Your task to perform on an android device: What is the capital of Italy? Image 0: 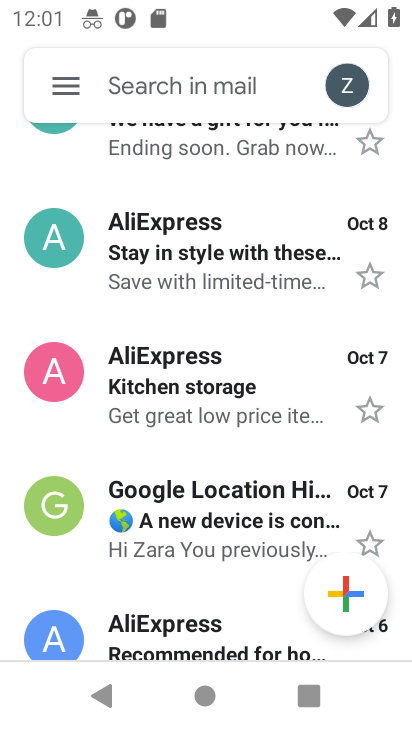
Step 0: press home button
Your task to perform on an android device: What is the capital of Italy? Image 1: 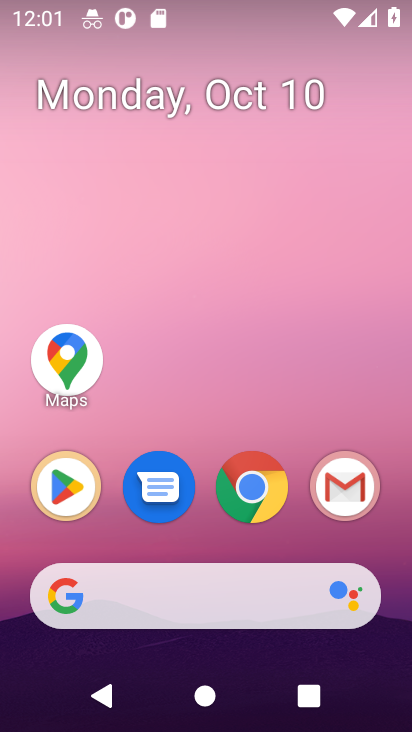
Step 1: click (252, 483)
Your task to perform on an android device: What is the capital of Italy? Image 2: 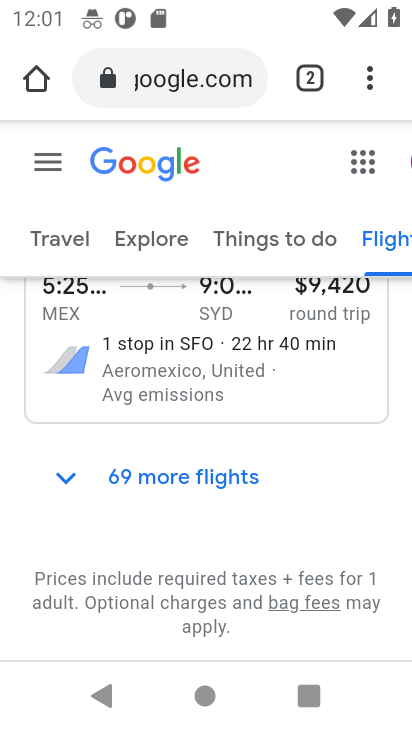
Step 2: click (197, 96)
Your task to perform on an android device: What is the capital of Italy? Image 3: 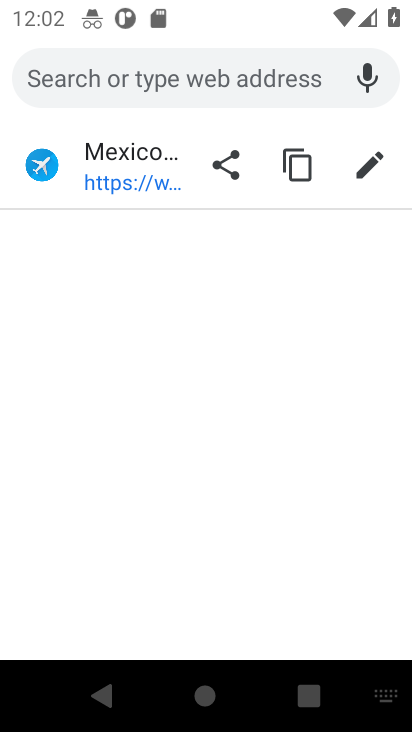
Step 3: click (204, 62)
Your task to perform on an android device: What is the capital of Italy? Image 4: 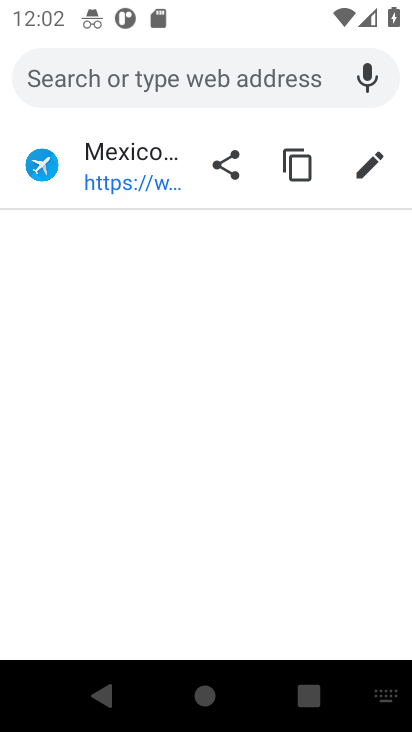
Step 4: type "capital city of Italy"
Your task to perform on an android device: What is the capital of Italy? Image 5: 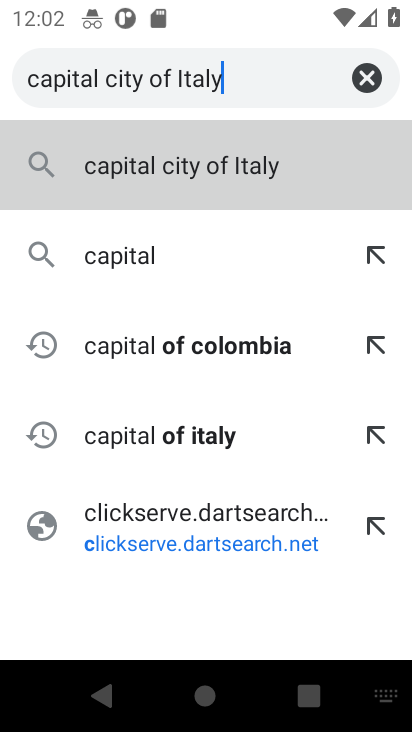
Step 5: type ""
Your task to perform on an android device: What is the capital of Italy? Image 6: 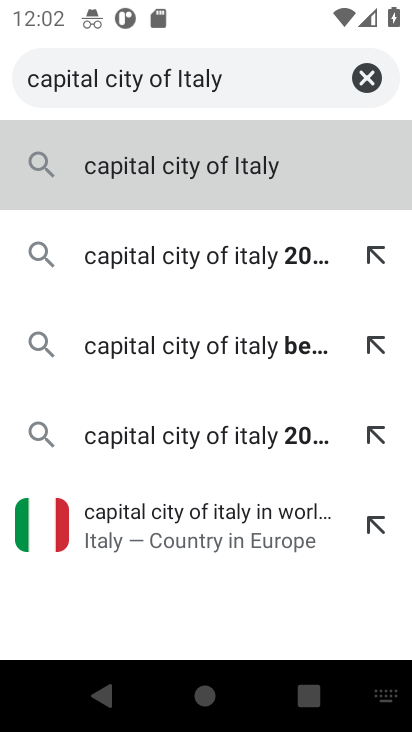
Step 6: press enter
Your task to perform on an android device: What is the capital of Italy? Image 7: 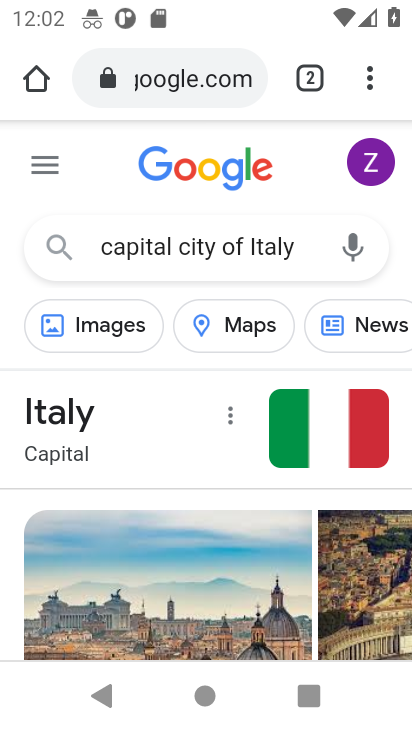
Step 7: drag from (181, 483) to (175, 219)
Your task to perform on an android device: What is the capital of Italy? Image 8: 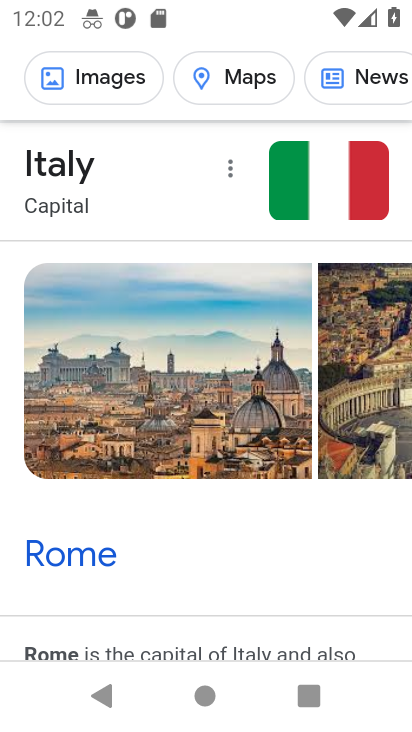
Step 8: drag from (186, 533) to (223, 293)
Your task to perform on an android device: What is the capital of Italy? Image 9: 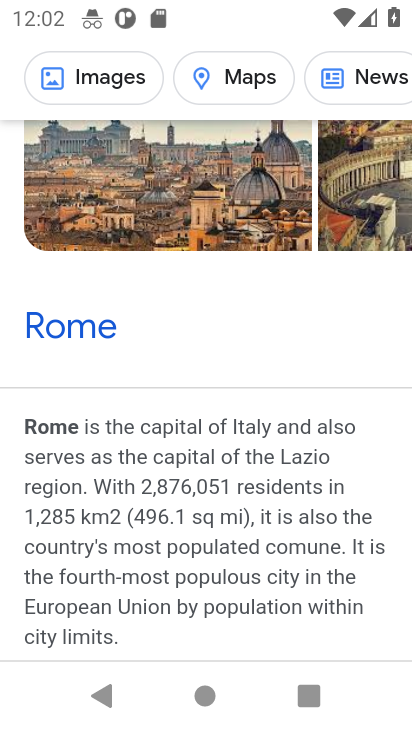
Step 9: drag from (172, 454) to (199, 283)
Your task to perform on an android device: What is the capital of Italy? Image 10: 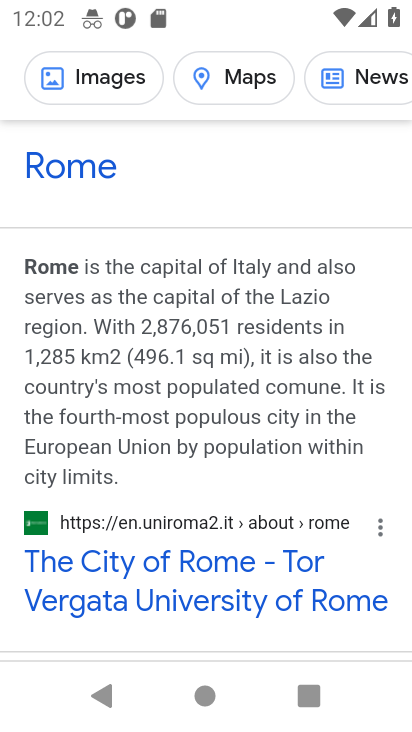
Step 10: drag from (272, 432) to (251, 330)
Your task to perform on an android device: What is the capital of Italy? Image 11: 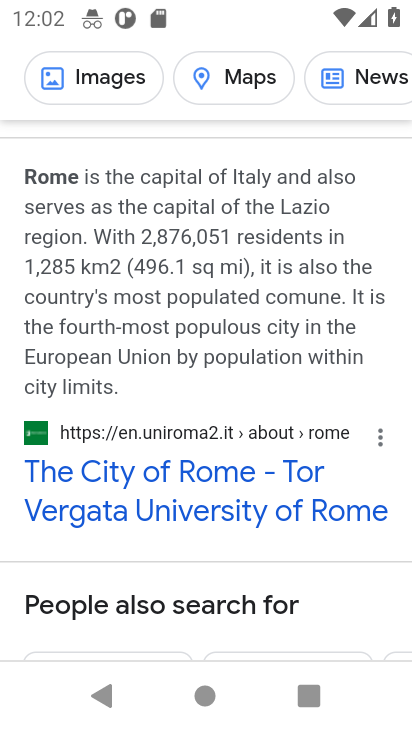
Step 11: drag from (251, 335) to (246, 487)
Your task to perform on an android device: What is the capital of Italy? Image 12: 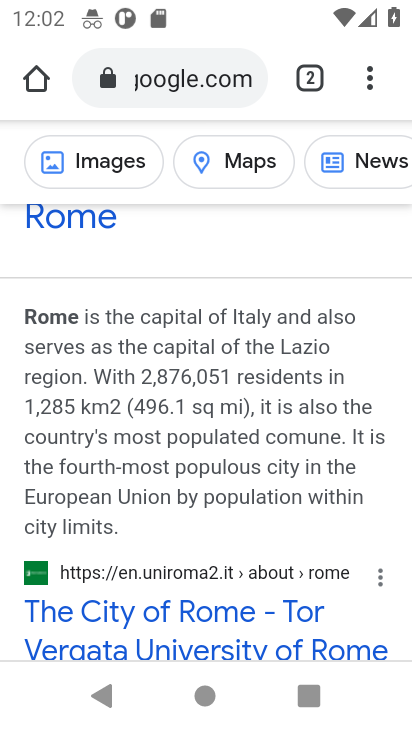
Step 12: drag from (350, 416) to (350, 493)
Your task to perform on an android device: What is the capital of Italy? Image 13: 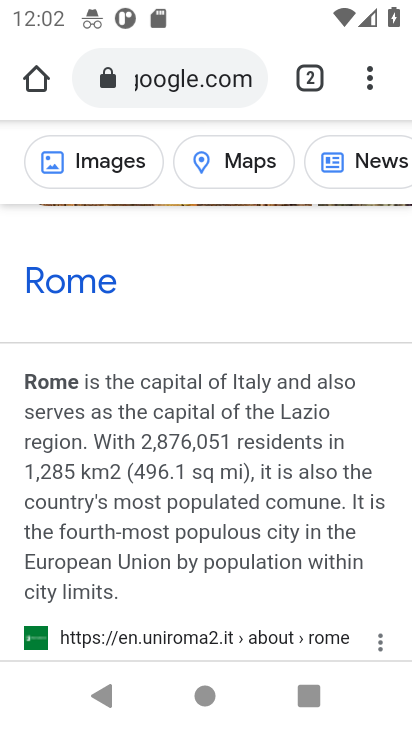
Step 13: drag from (215, 513) to (217, 415)
Your task to perform on an android device: What is the capital of Italy? Image 14: 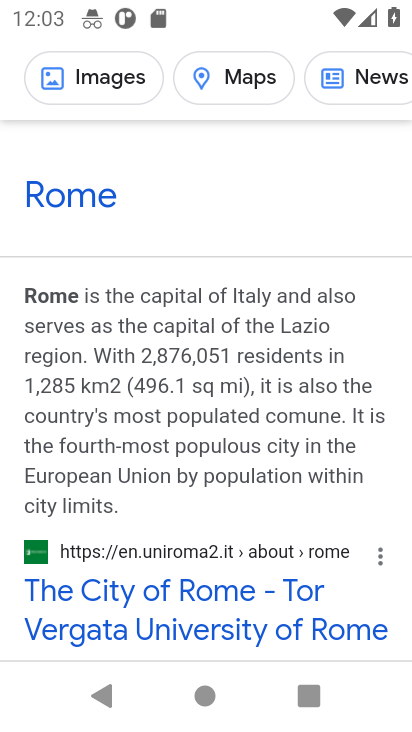
Step 14: drag from (240, 529) to (259, 375)
Your task to perform on an android device: What is the capital of Italy? Image 15: 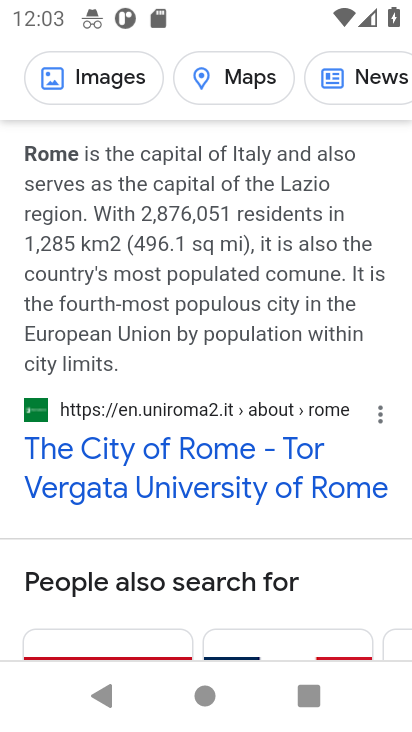
Step 15: drag from (311, 545) to (333, 302)
Your task to perform on an android device: What is the capital of Italy? Image 16: 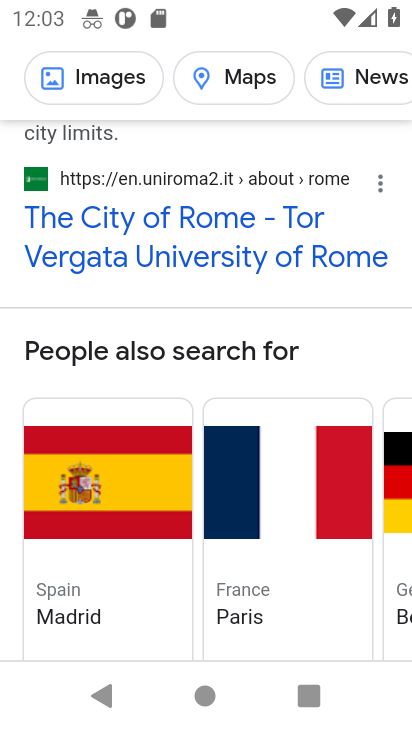
Step 16: drag from (261, 287) to (268, 455)
Your task to perform on an android device: What is the capital of Italy? Image 17: 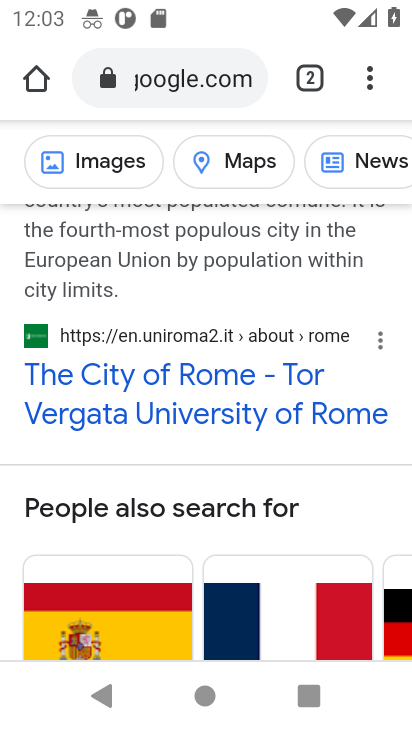
Step 17: drag from (201, 291) to (189, 467)
Your task to perform on an android device: What is the capital of Italy? Image 18: 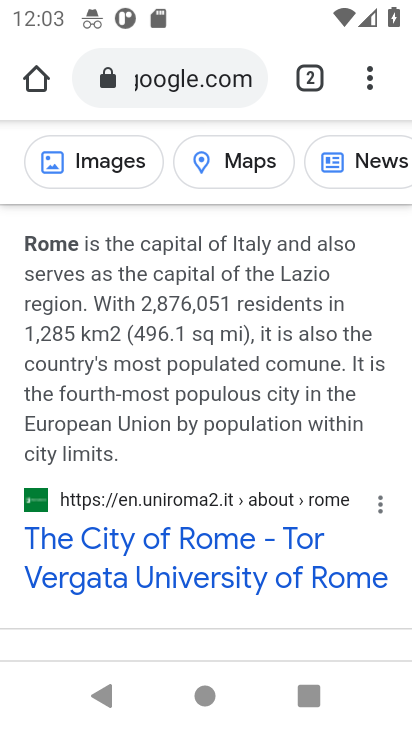
Step 18: click (211, 466)
Your task to perform on an android device: What is the capital of Italy? Image 19: 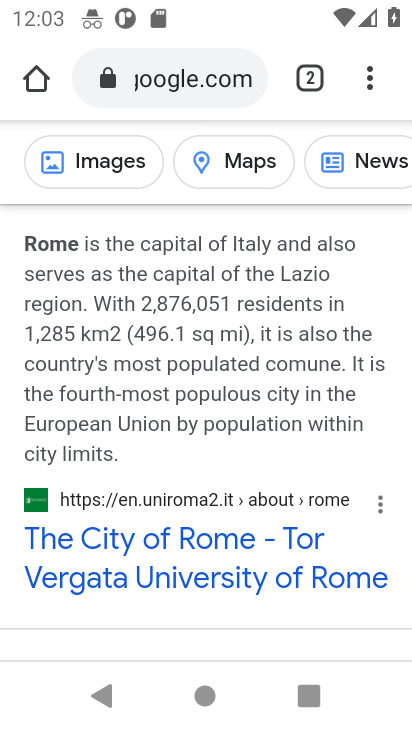
Step 19: task complete